Your task to perform on an android device: Open eBay Image 0: 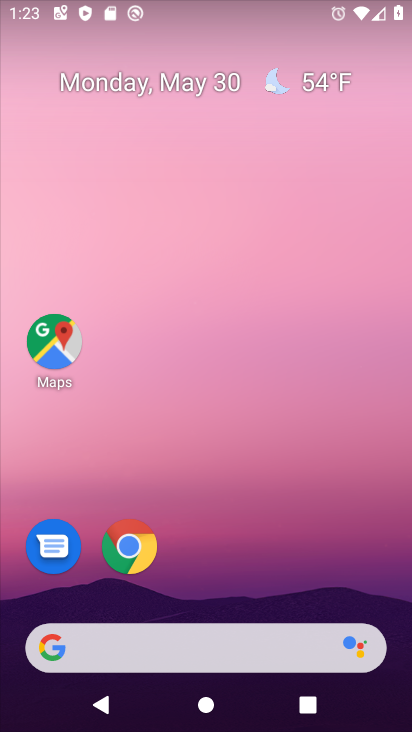
Step 0: press home button
Your task to perform on an android device: Open eBay Image 1: 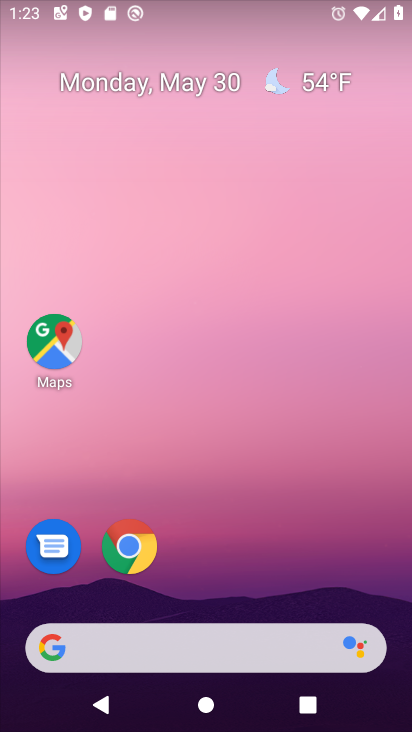
Step 1: click (51, 656)
Your task to perform on an android device: Open eBay Image 2: 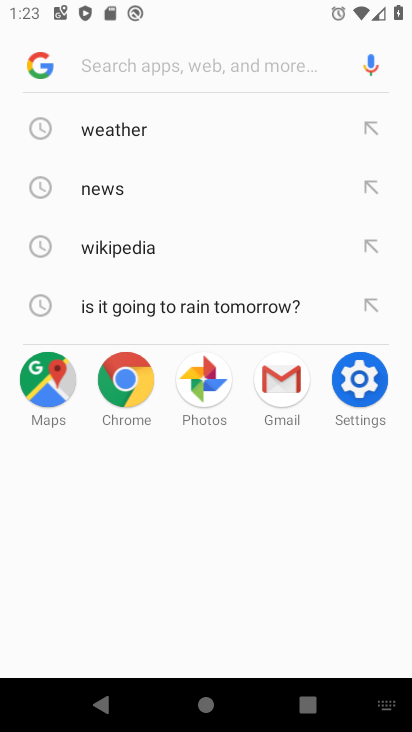
Step 2: type "eBay"
Your task to perform on an android device: Open eBay Image 3: 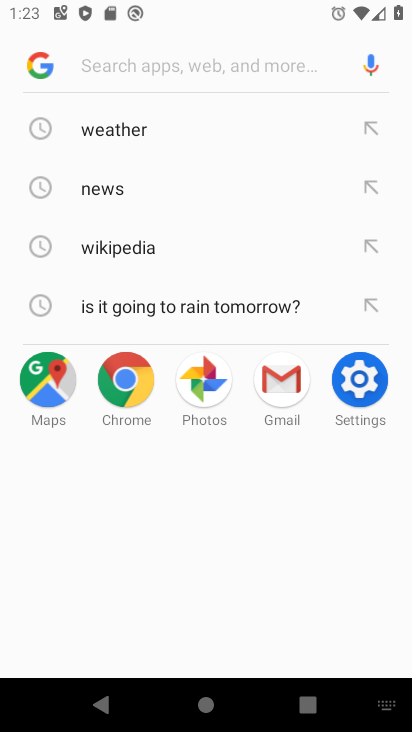
Step 3: click (234, 62)
Your task to perform on an android device: Open eBay Image 4: 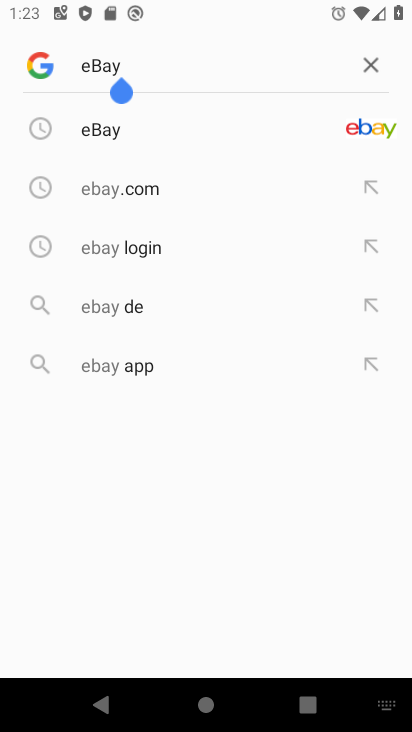
Step 4: click (94, 135)
Your task to perform on an android device: Open eBay Image 5: 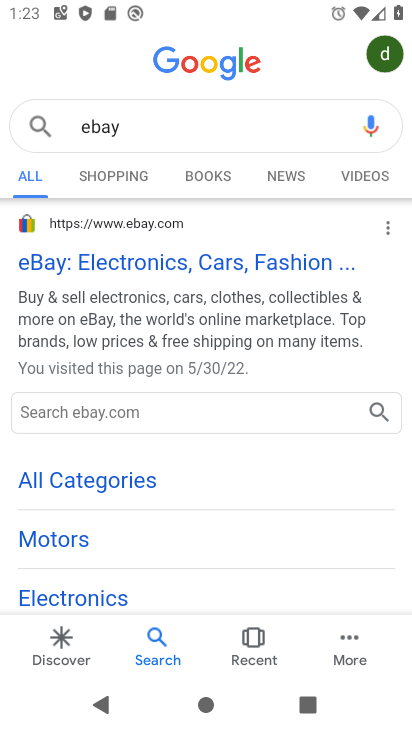
Step 5: click (174, 260)
Your task to perform on an android device: Open eBay Image 6: 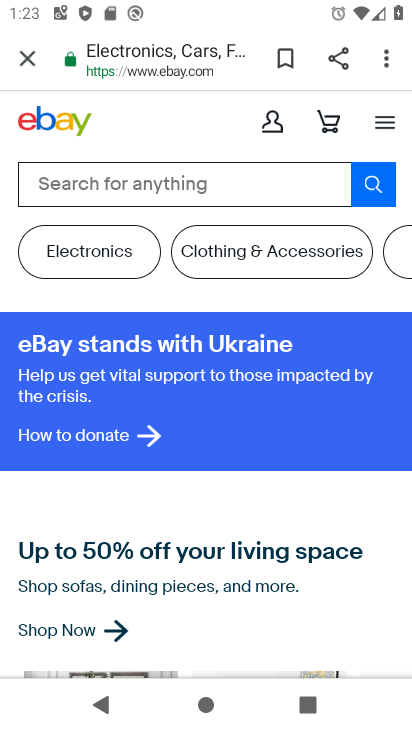
Step 6: task complete